Your task to perform on an android device: Open settings Image 0: 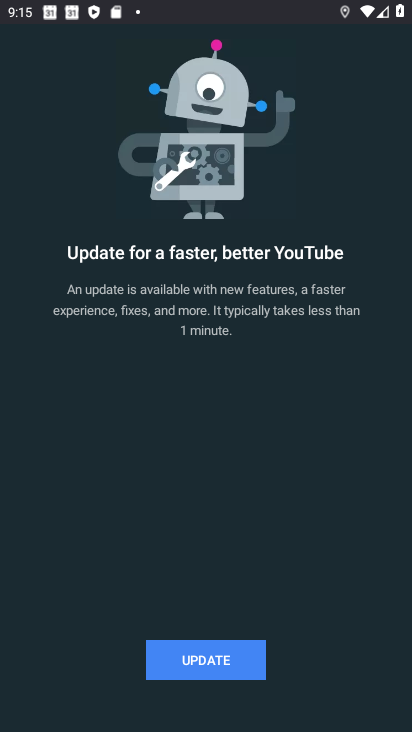
Step 0: press back button
Your task to perform on an android device: Open settings Image 1: 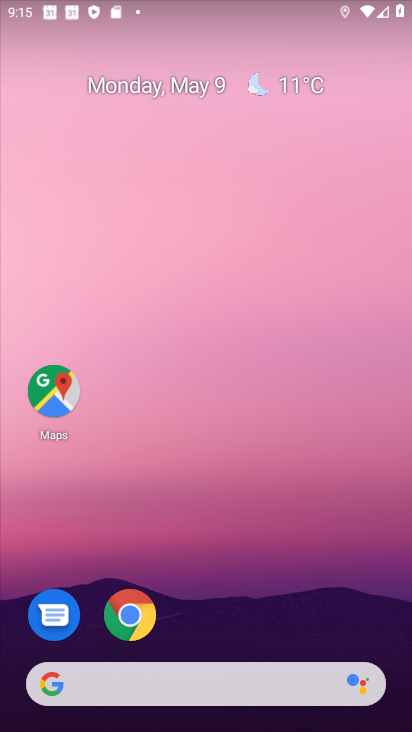
Step 1: drag from (270, 625) to (274, 37)
Your task to perform on an android device: Open settings Image 2: 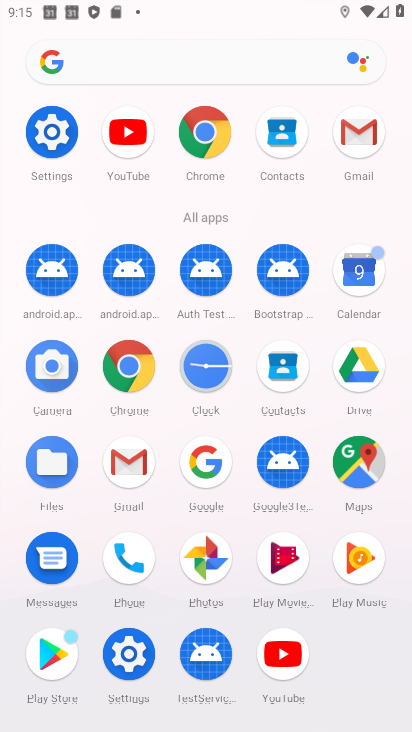
Step 2: click (127, 652)
Your task to perform on an android device: Open settings Image 3: 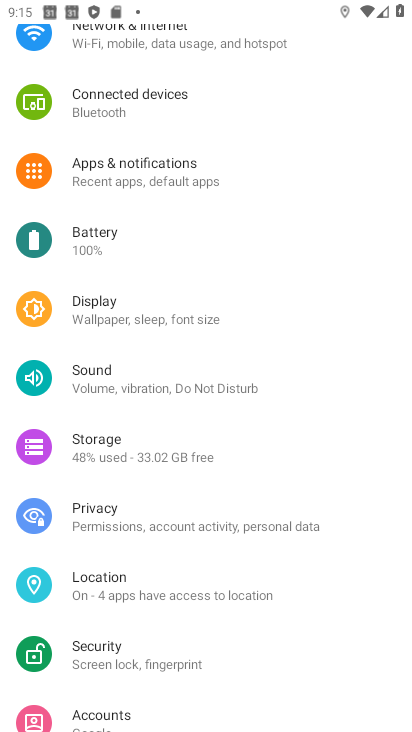
Step 3: task complete